Your task to perform on an android device: Go to calendar. Show me events next week Image 0: 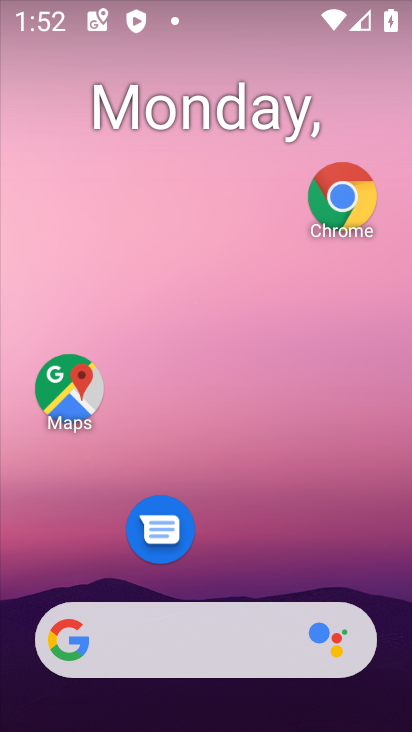
Step 0: drag from (225, 573) to (183, 2)
Your task to perform on an android device: Go to calendar. Show me events next week Image 1: 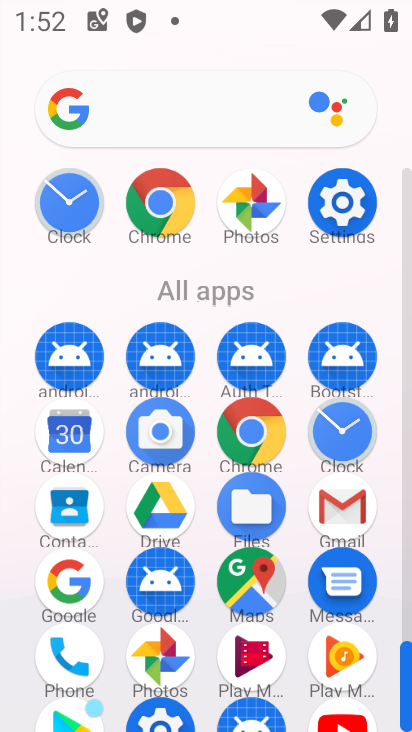
Step 1: click (75, 441)
Your task to perform on an android device: Go to calendar. Show me events next week Image 2: 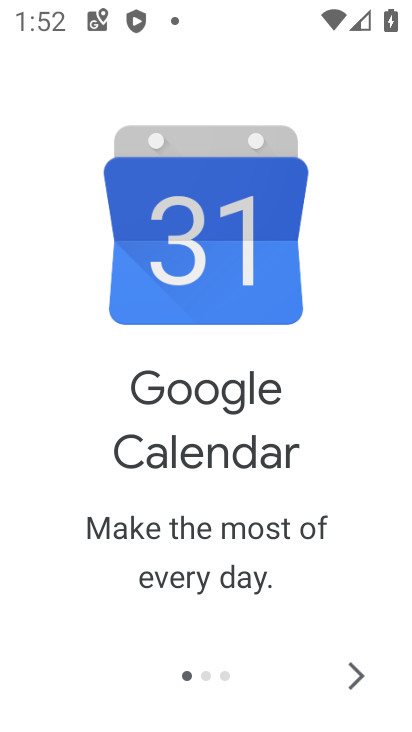
Step 2: click (349, 685)
Your task to perform on an android device: Go to calendar. Show me events next week Image 3: 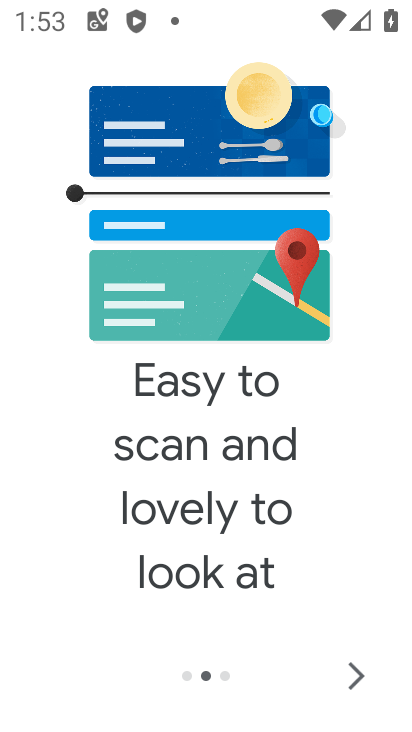
Step 3: click (349, 685)
Your task to perform on an android device: Go to calendar. Show me events next week Image 4: 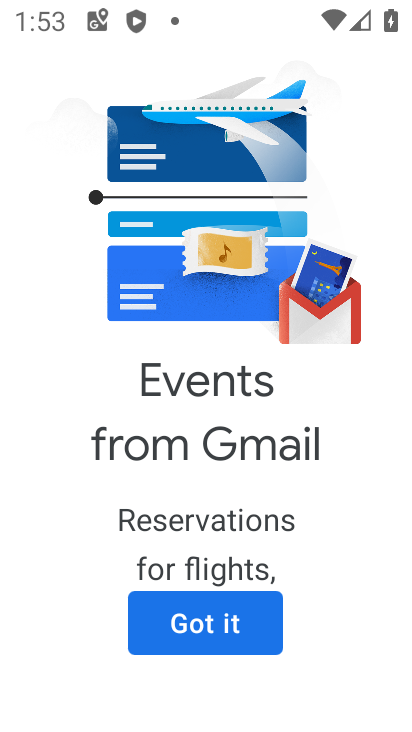
Step 4: click (349, 685)
Your task to perform on an android device: Go to calendar. Show me events next week Image 5: 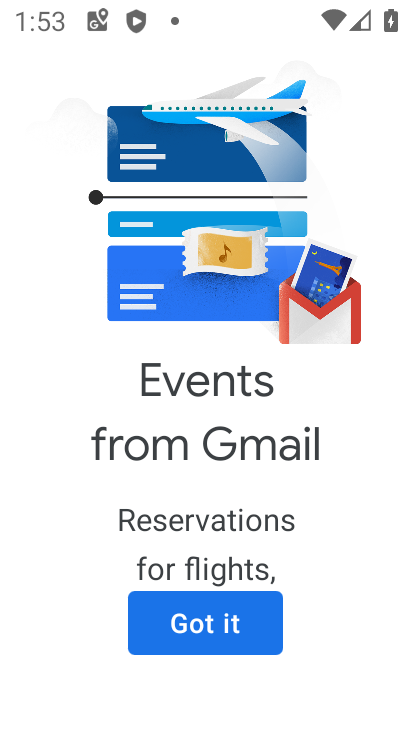
Step 5: click (240, 606)
Your task to perform on an android device: Go to calendar. Show me events next week Image 6: 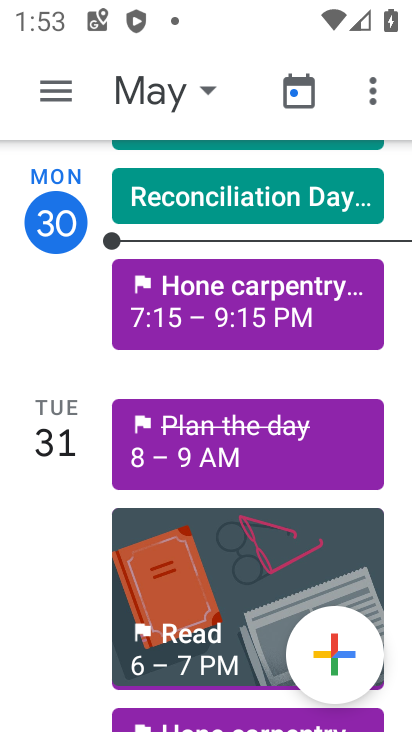
Step 6: click (42, 93)
Your task to perform on an android device: Go to calendar. Show me events next week Image 7: 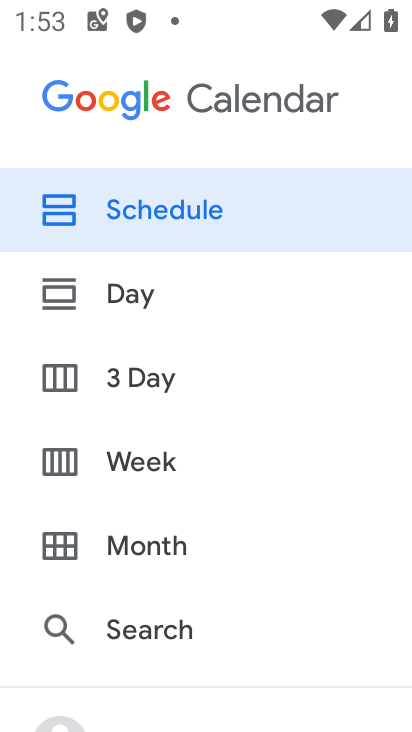
Step 7: click (139, 467)
Your task to perform on an android device: Go to calendar. Show me events next week Image 8: 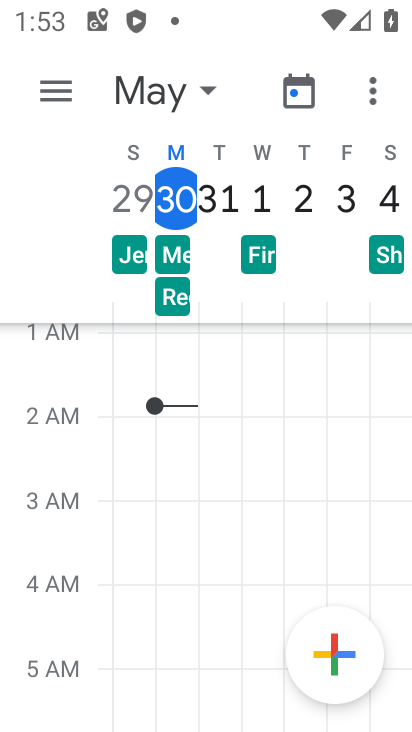
Step 8: task complete